Your task to perform on an android device: turn off translation in the chrome app Image 0: 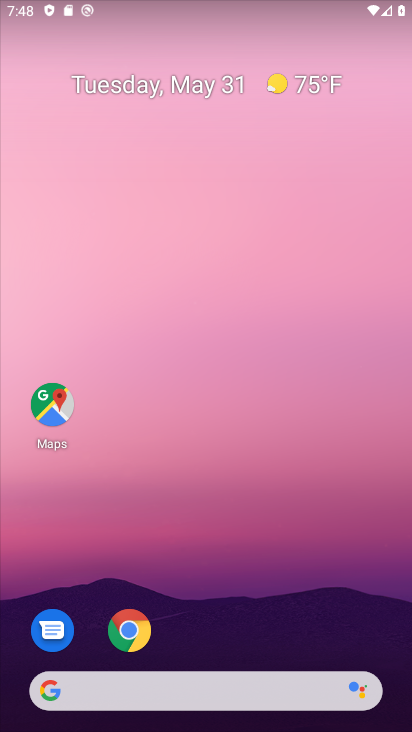
Step 0: drag from (224, 650) to (261, 179)
Your task to perform on an android device: turn off translation in the chrome app Image 1: 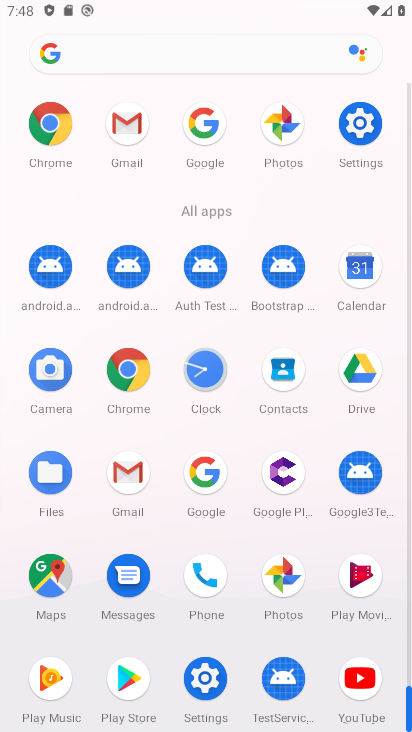
Step 1: click (54, 147)
Your task to perform on an android device: turn off translation in the chrome app Image 2: 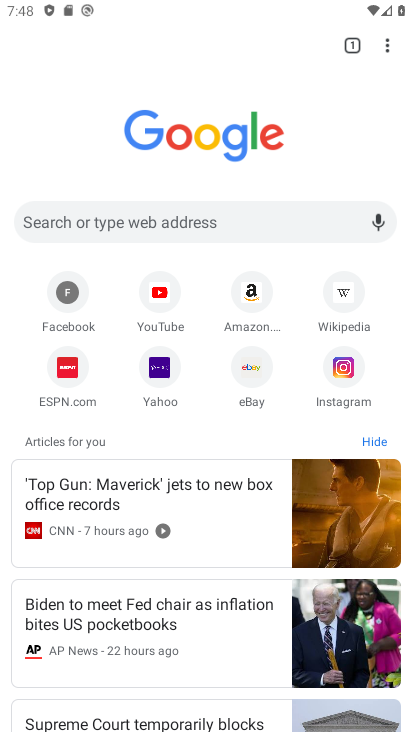
Step 2: click (386, 47)
Your task to perform on an android device: turn off translation in the chrome app Image 3: 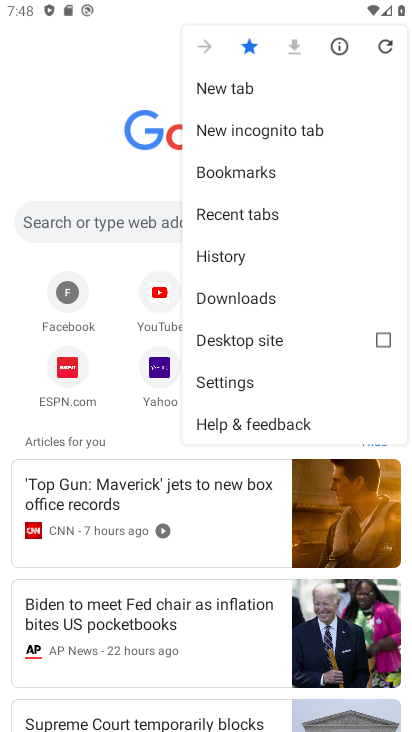
Step 3: task complete